Your task to perform on an android device: Is it going to rain today? Image 0: 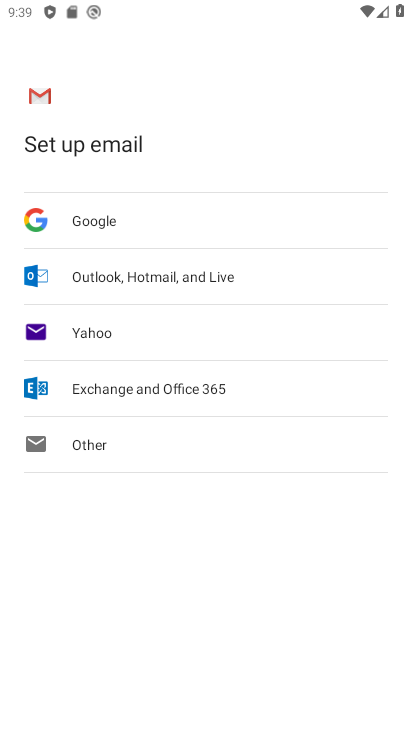
Step 0: press home button
Your task to perform on an android device: Is it going to rain today? Image 1: 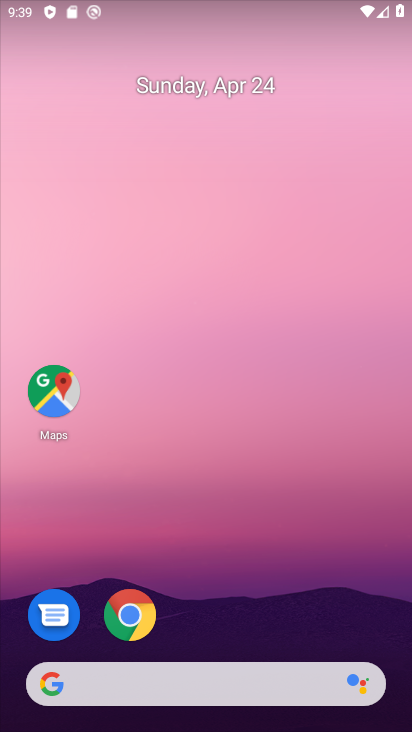
Step 1: drag from (53, 188) to (393, 178)
Your task to perform on an android device: Is it going to rain today? Image 2: 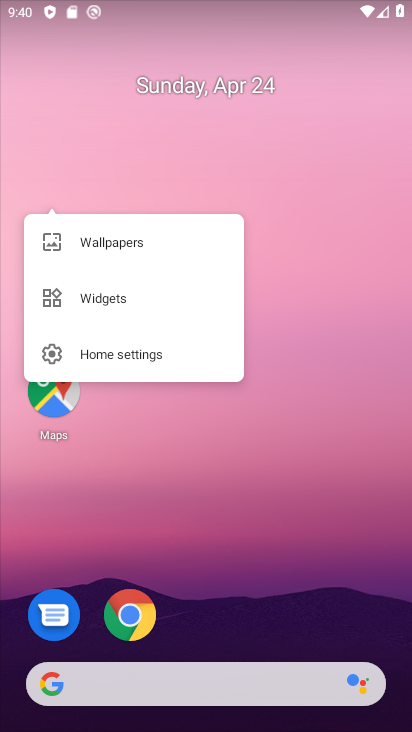
Step 2: drag from (79, 161) to (409, 195)
Your task to perform on an android device: Is it going to rain today? Image 3: 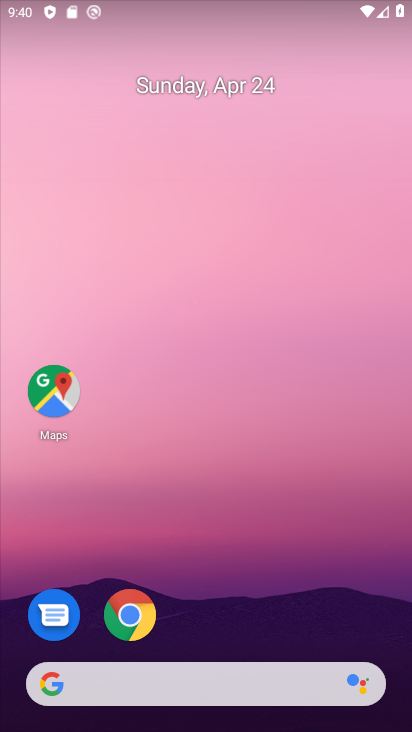
Step 3: drag from (19, 220) to (363, 216)
Your task to perform on an android device: Is it going to rain today? Image 4: 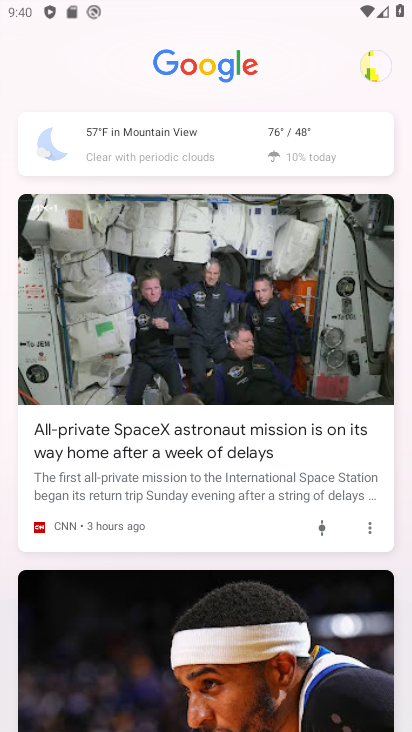
Step 4: click (276, 127)
Your task to perform on an android device: Is it going to rain today? Image 5: 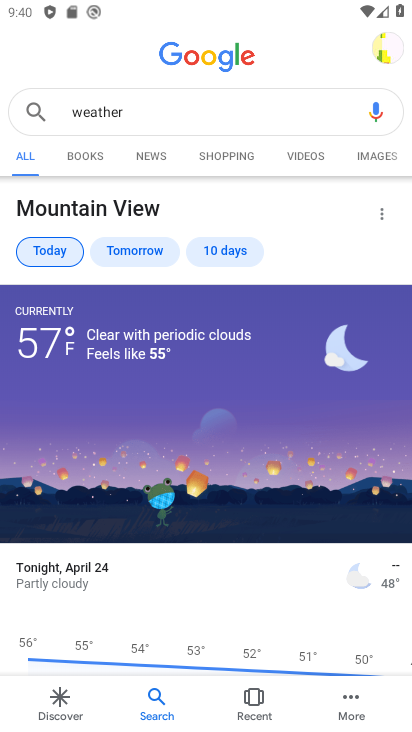
Step 5: task complete